Your task to perform on an android device: open app "eBay: The shopping marketplace" (install if not already installed) and go to login screen Image 0: 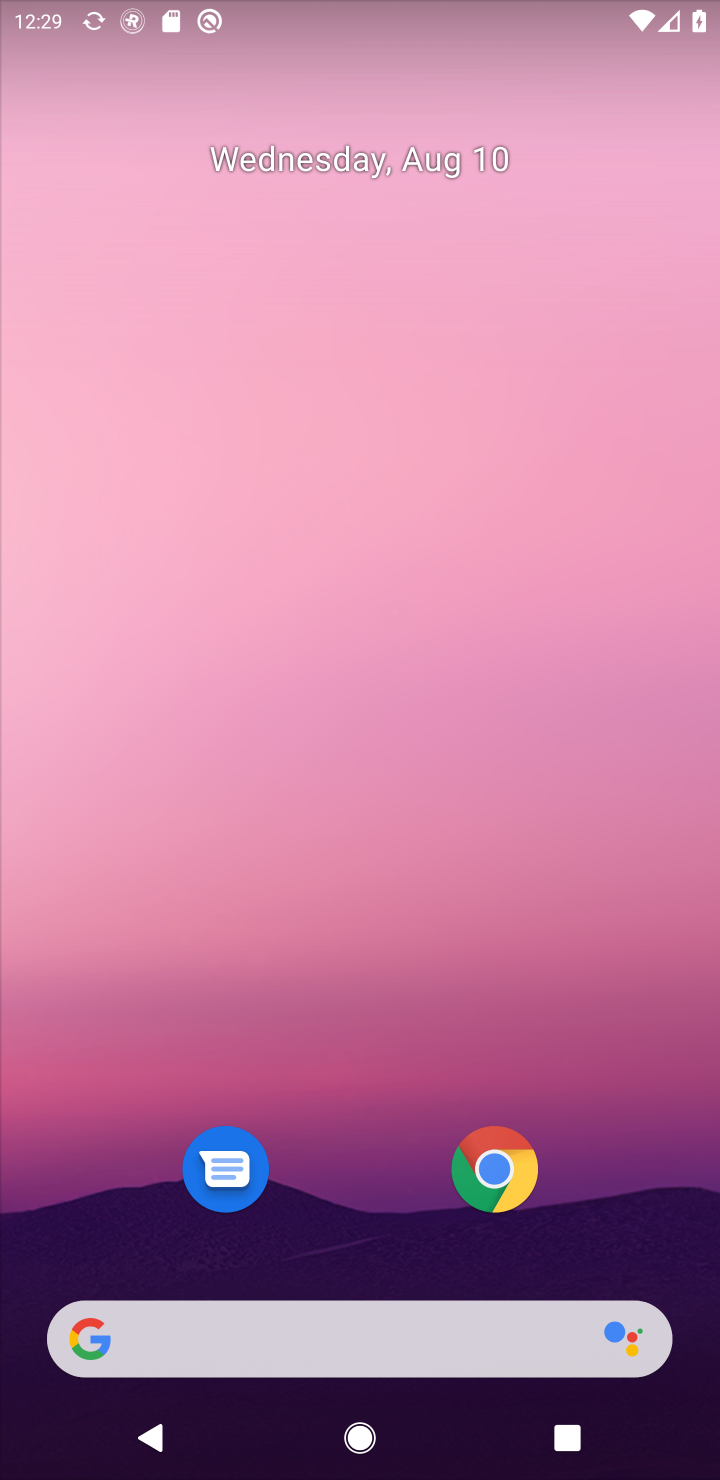
Step 0: press home button
Your task to perform on an android device: open app "eBay: The shopping marketplace" (install if not already installed) and go to login screen Image 1: 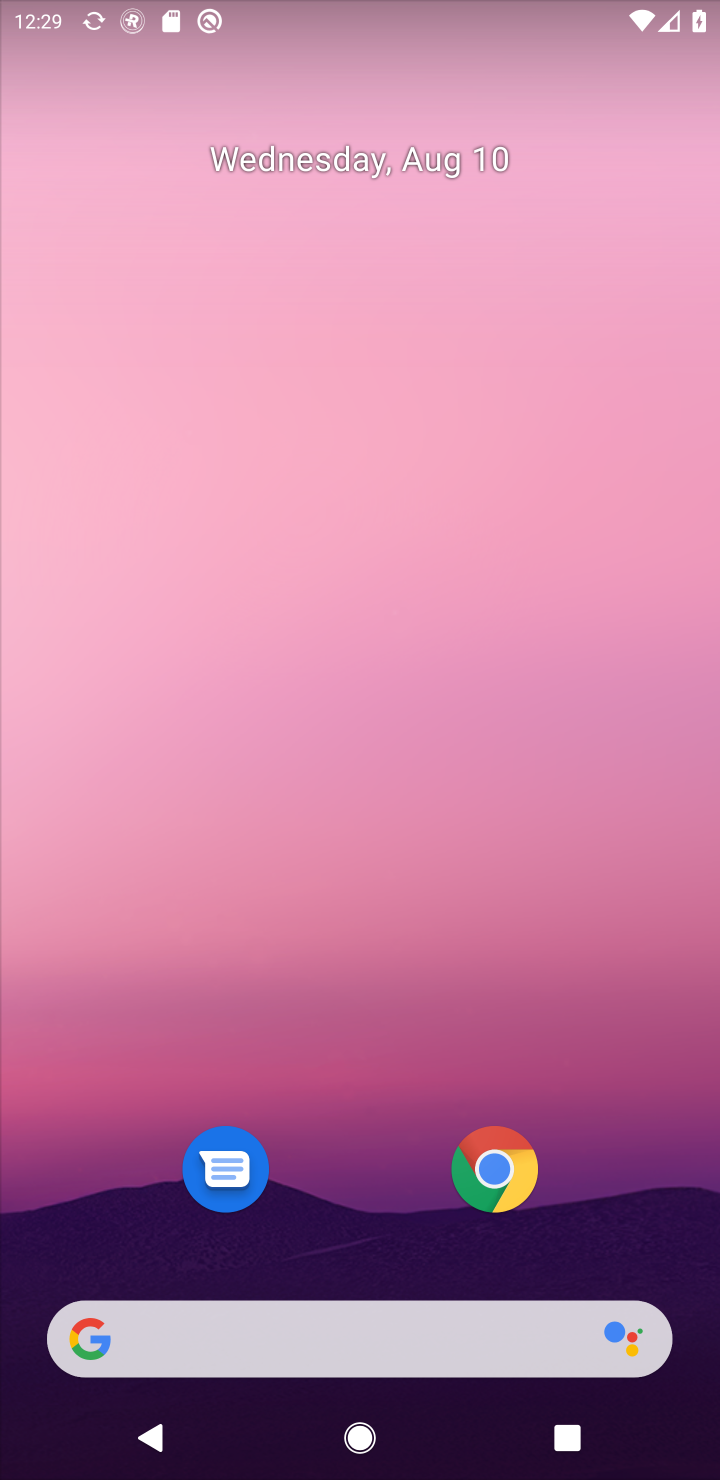
Step 1: drag from (616, 1017) to (667, 111)
Your task to perform on an android device: open app "eBay: The shopping marketplace" (install if not already installed) and go to login screen Image 2: 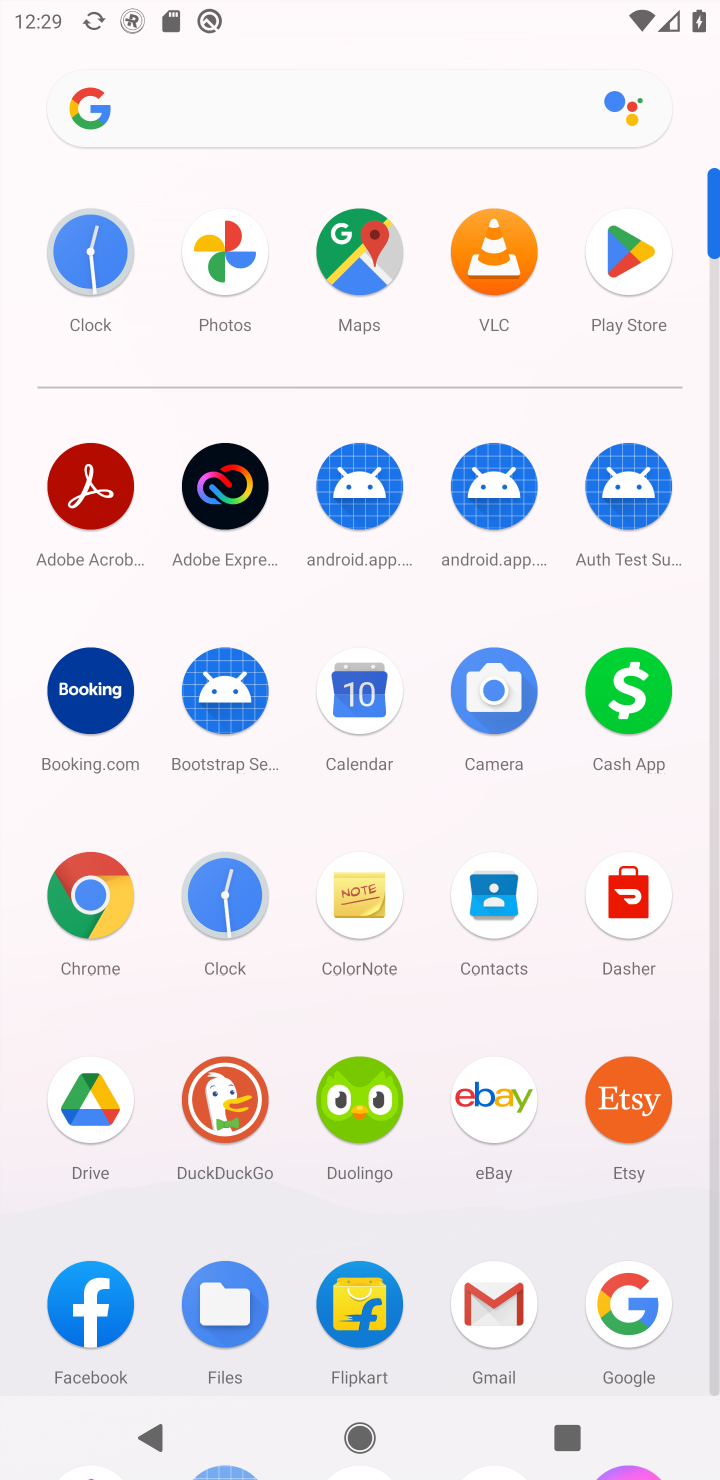
Step 2: click (618, 248)
Your task to perform on an android device: open app "eBay: The shopping marketplace" (install if not already installed) and go to login screen Image 3: 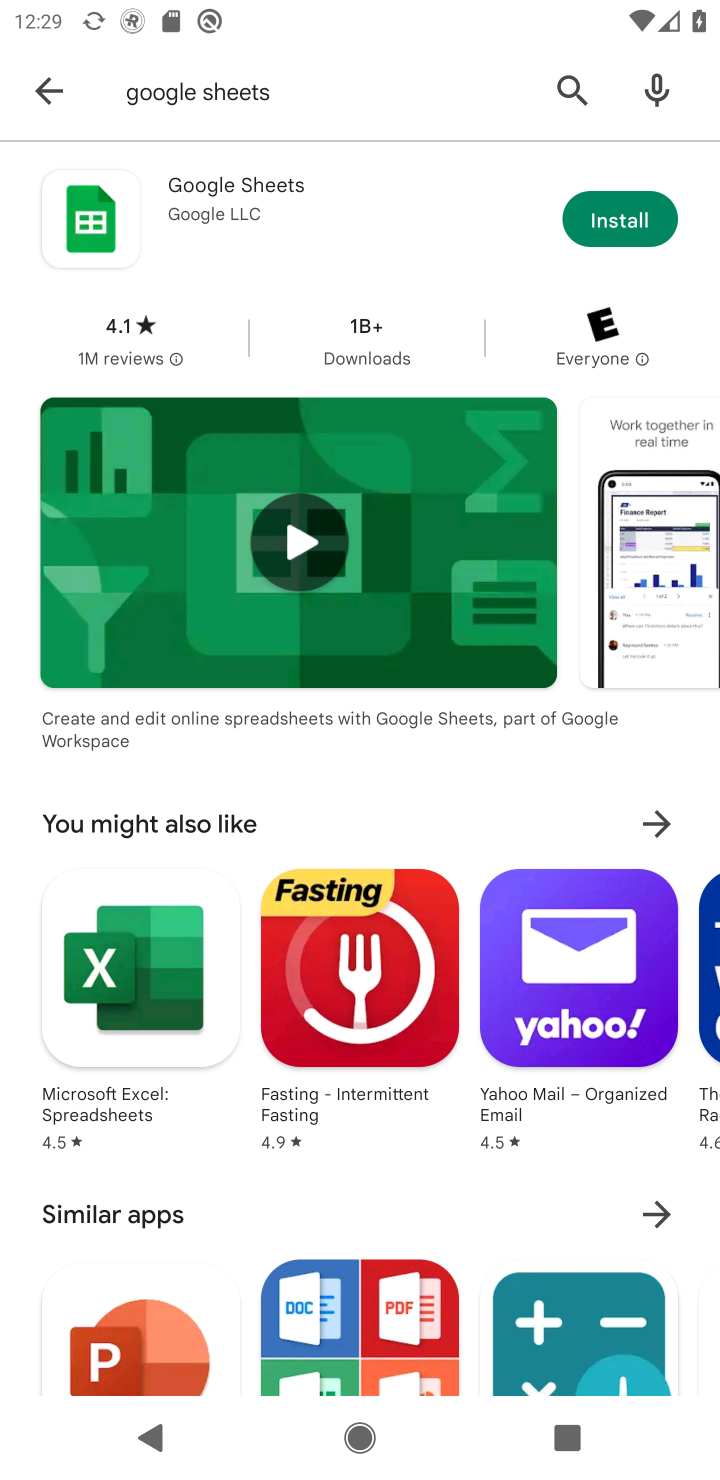
Step 3: click (566, 94)
Your task to perform on an android device: open app "eBay: The shopping marketplace" (install if not already installed) and go to login screen Image 4: 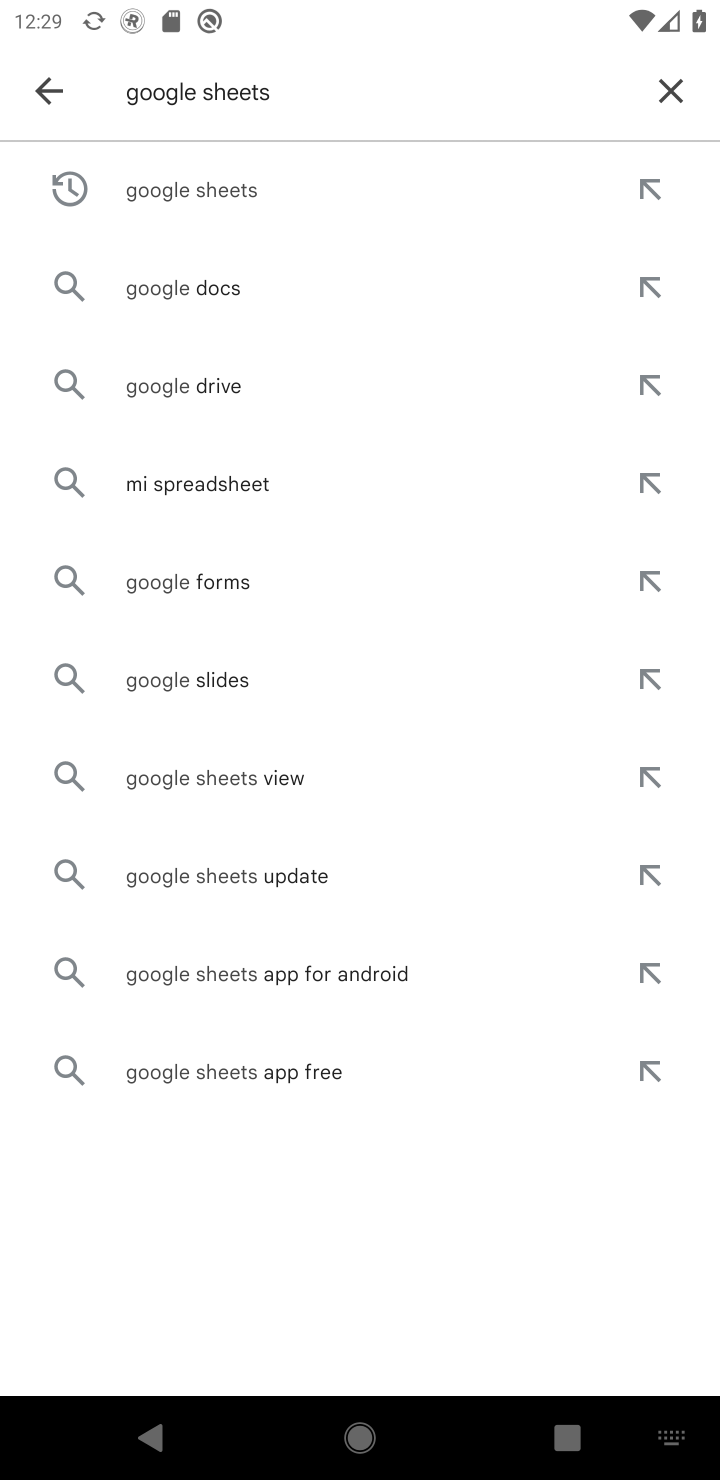
Step 4: click (680, 100)
Your task to perform on an android device: open app "eBay: The shopping marketplace" (install if not already installed) and go to login screen Image 5: 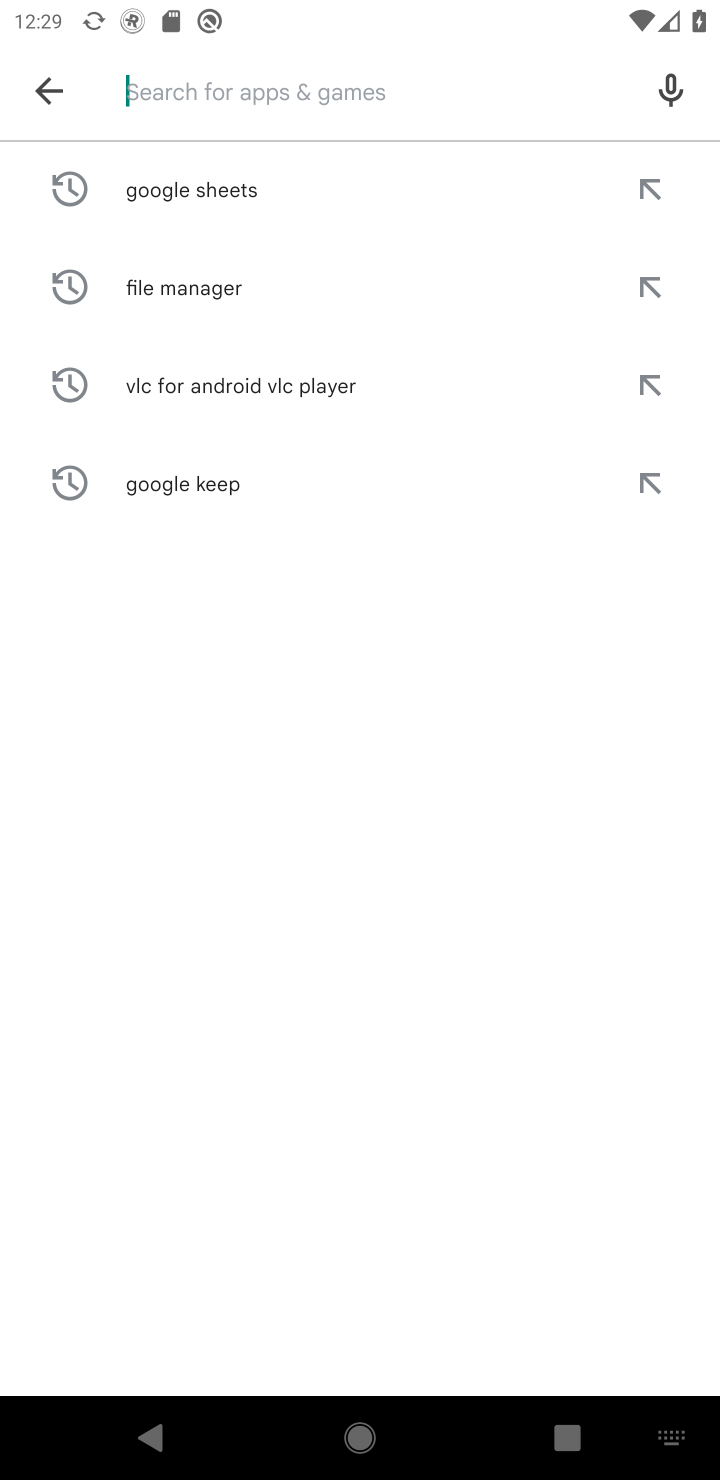
Step 5: type "eBay: The shopping marketplace"
Your task to perform on an android device: open app "eBay: The shopping marketplace" (install if not already installed) and go to login screen Image 6: 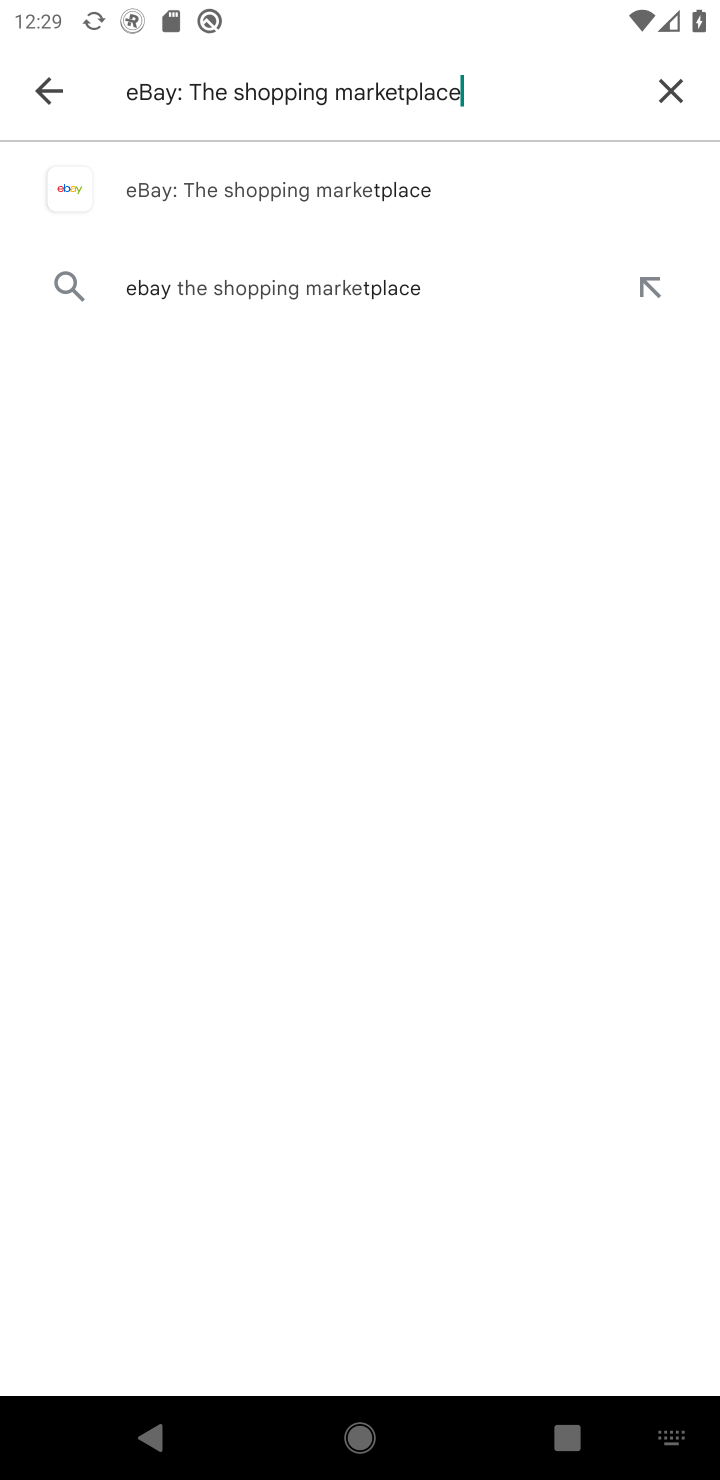
Step 6: press enter
Your task to perform on an android device: open app "eBay: The shopping marketplace" (install if not already installed) and go to login screen Image 7: 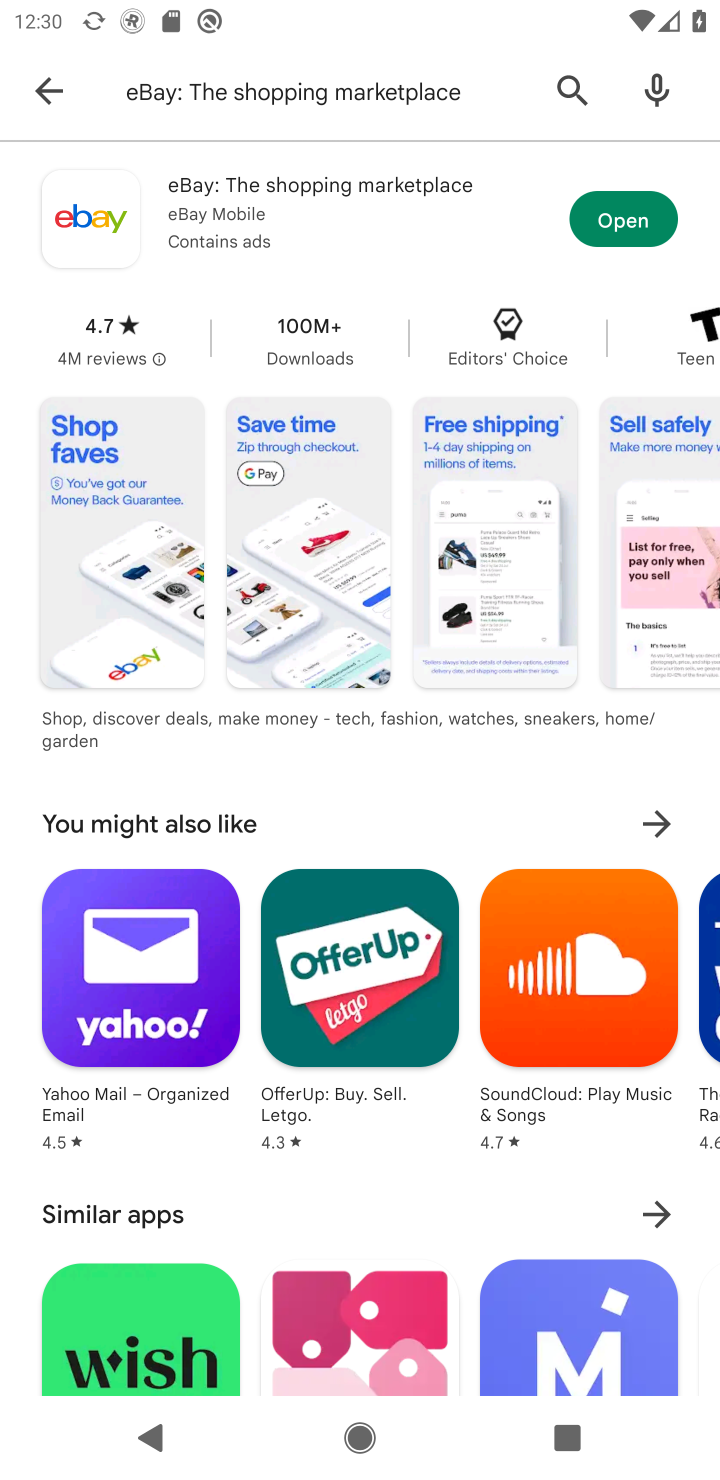
Step 7: click (623, 224)
Your task to perform on an android device: open app "eBay: The shopping marketplace" (install if not already installed) and go to login screen Image 8: 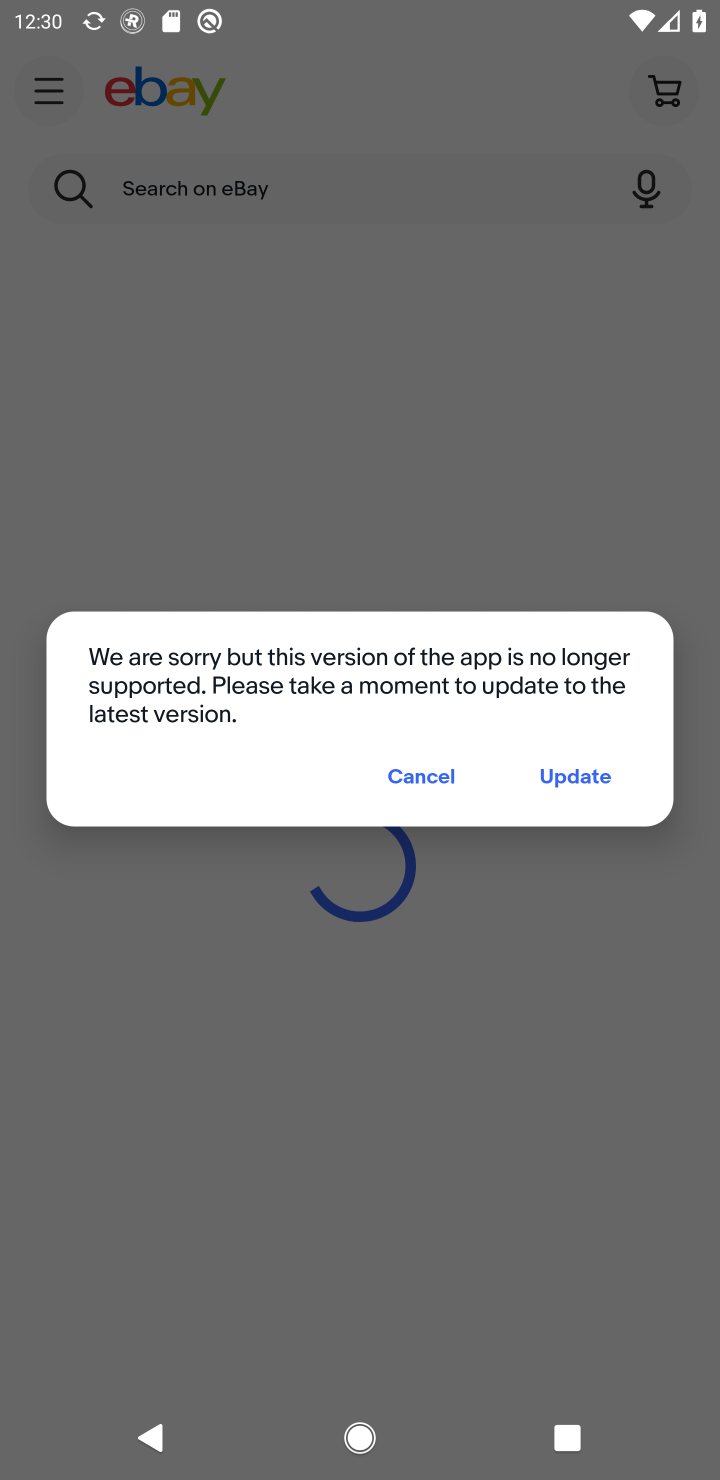
Step 8: click (420, 769)
Your task to perform on an android device: open app "eBay: The shopping marketplace" (install if not already installed) and go to login screen Image 9: 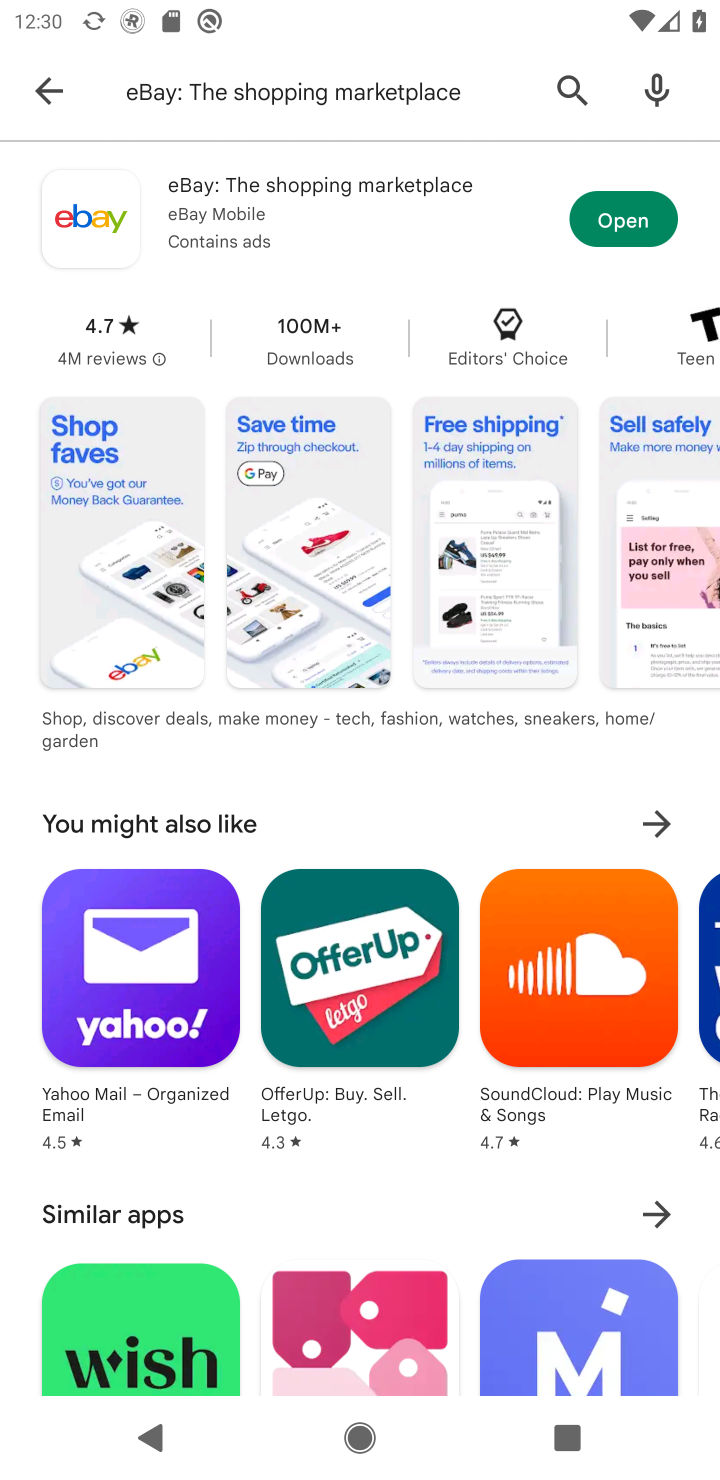
Step 9: task complete